Your task to perform on an android device: change alarm snooze length Image 0: 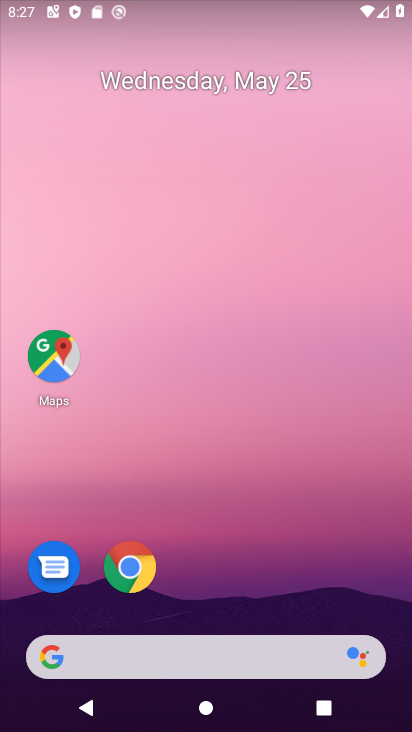
Step 0: drag from (316, 491) to (304, 38)
Your task to perform on an android device: change alarm snooze length Image 1: 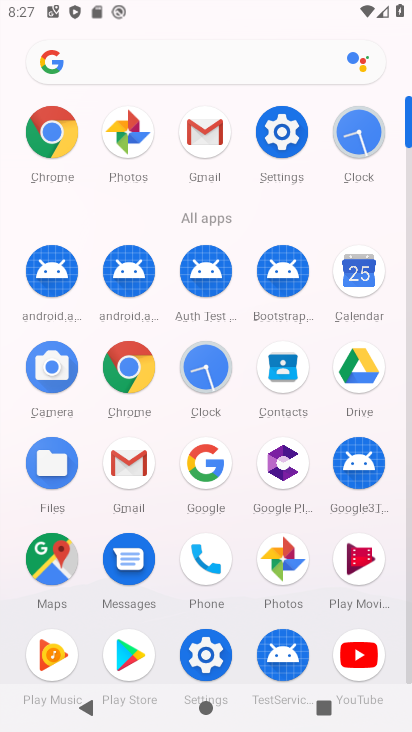
Step 1: click (351, 137)
Your task to perform on an android device: change alarm snooze length Image 2: 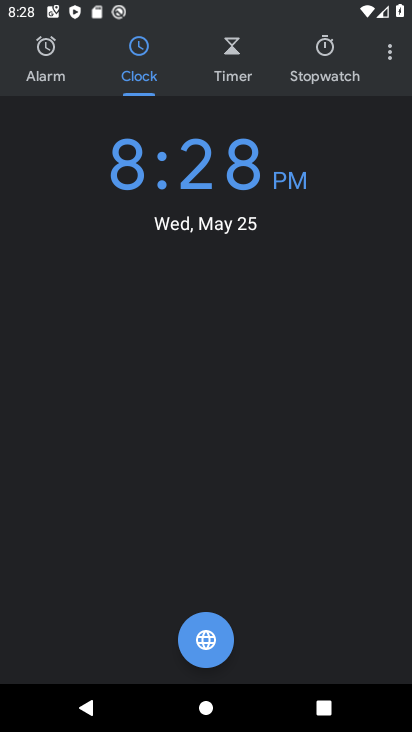
Step 2: click (380, 49)
Your task to perform on an android device: change alarm snooze length Image 3: 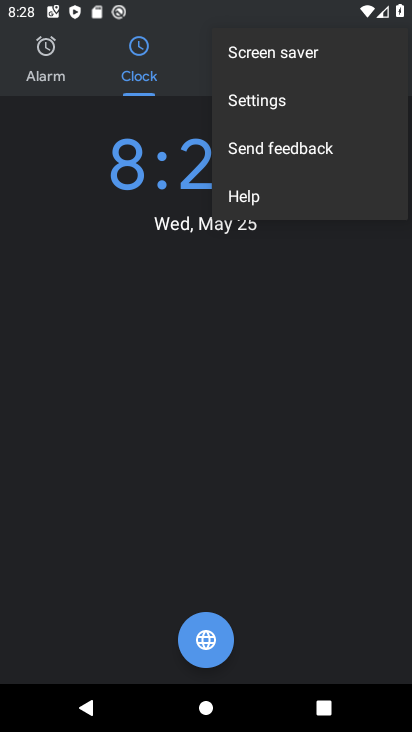
Step 3: click (326, 106)
Your task to perform on an android device: change alarm snooze length Image 4: 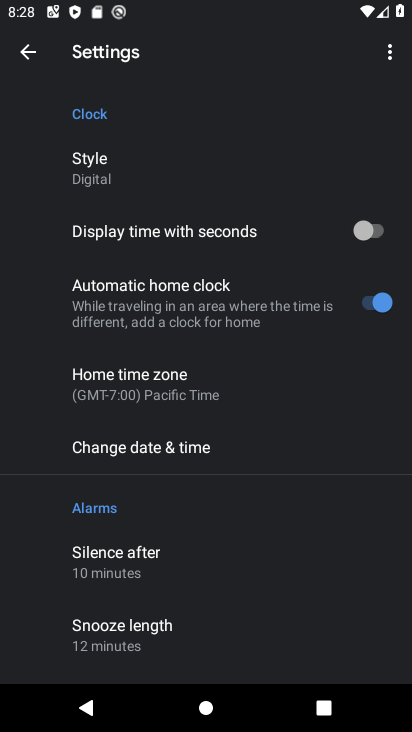
Step 4: click (172, 627)
Your task to perform on an android device: change alarm snooze length Image 5: 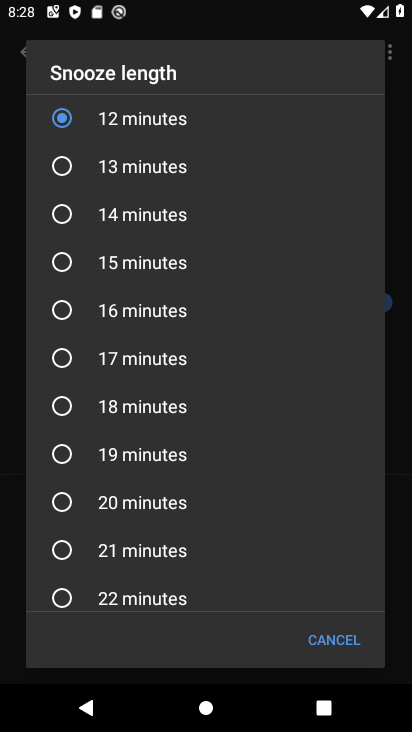
Step 5: drag from (143, 150) to (172, 369)
Your task to perform on an android device: change alarm snooze length Image 6: 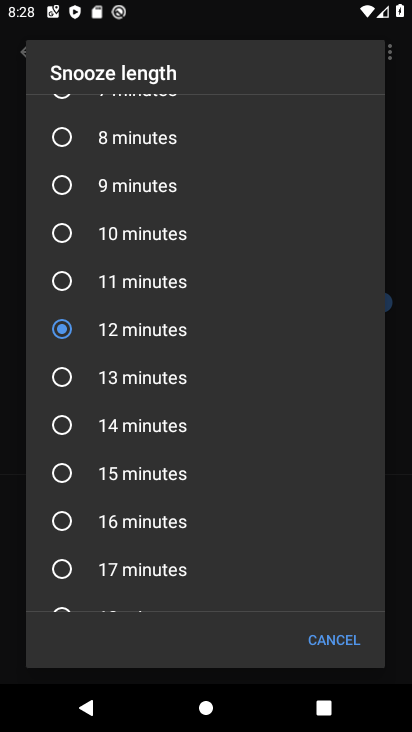
Step 6: click (135, 232)
Your task to perform on an android device: change alarm snooze length Image 7: 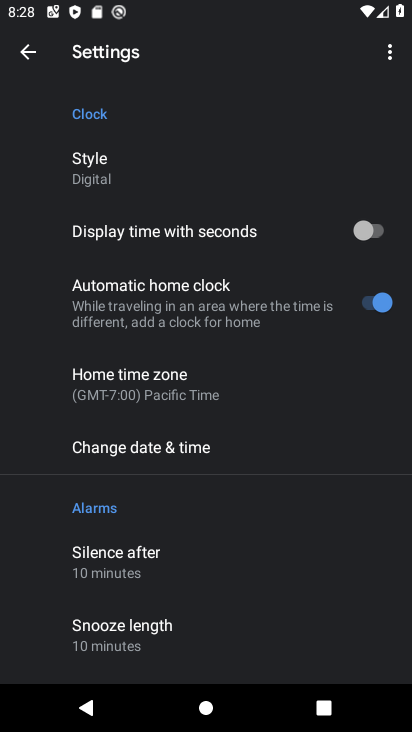
Step 7: task complete